Your task to perform on an android device: Open Yahoo.com Image 0: 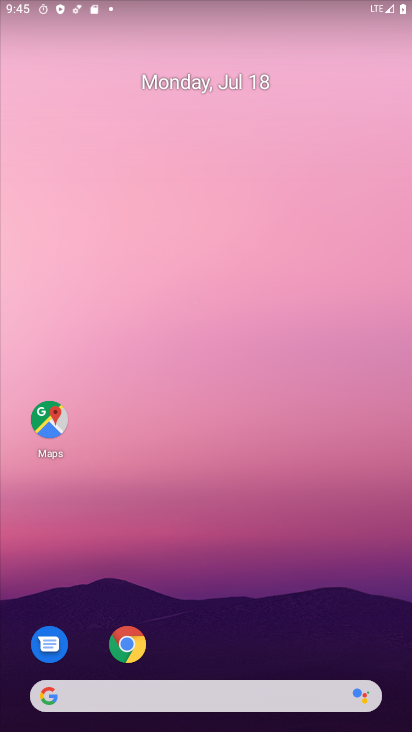
Step 0: press home button
Your task to perform on an android device: Open Yahoo.com Image 1: 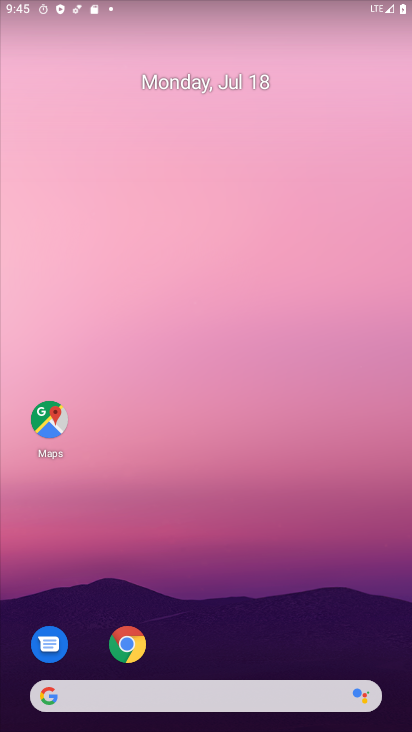
Step 1: click (127, 638)
Your task to perform on an android device: Open Yahoo.com Image 2: 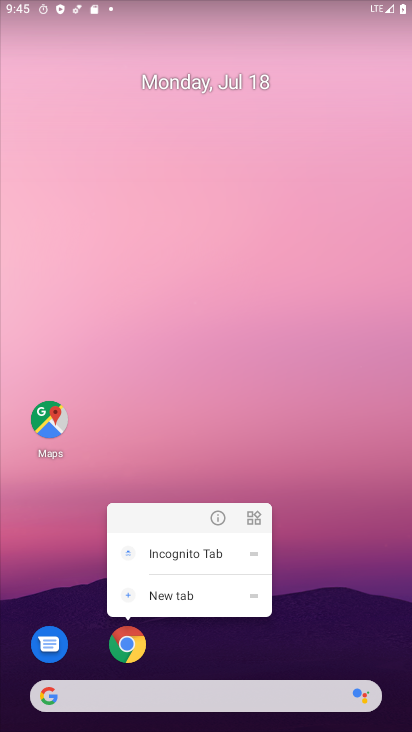
Step 2: click (123, 639)
Your task to perform on an android device: Open Yahoo.com Image 3: 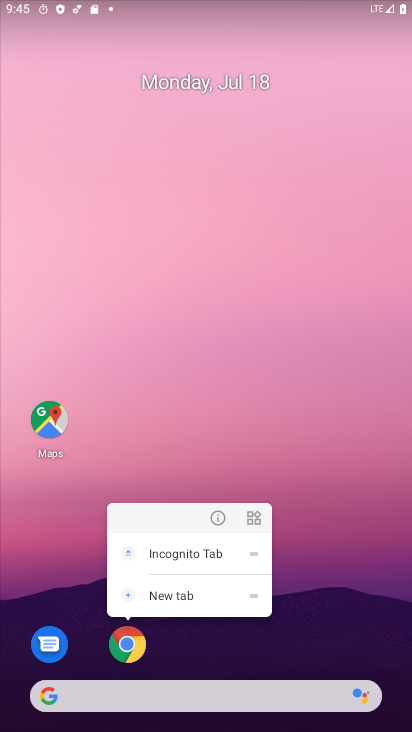
Step 3: click (128, 640)
Your task to perform on an android device: Open Yahoo.com Image 4: 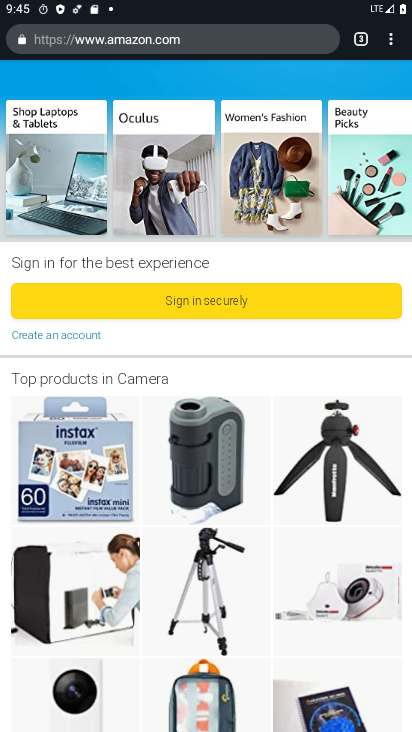
Step 4: click (359, 36)
Your task to perform on an android device: Open Yahoo.com Image 5: 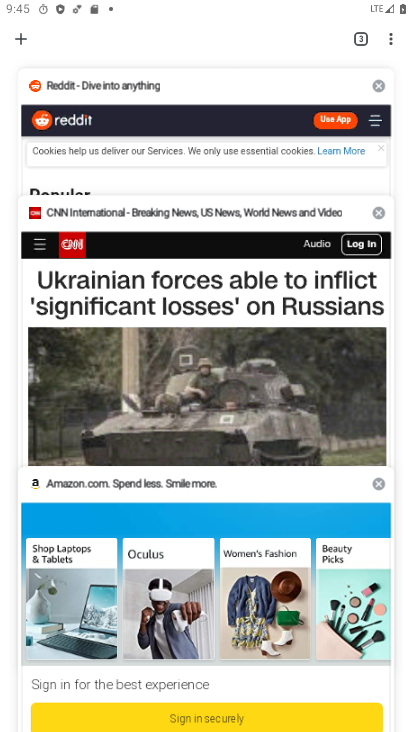
Step 5: click (22, 42)
Your task to perform on an android device: Open Yahoo.com Image 6: 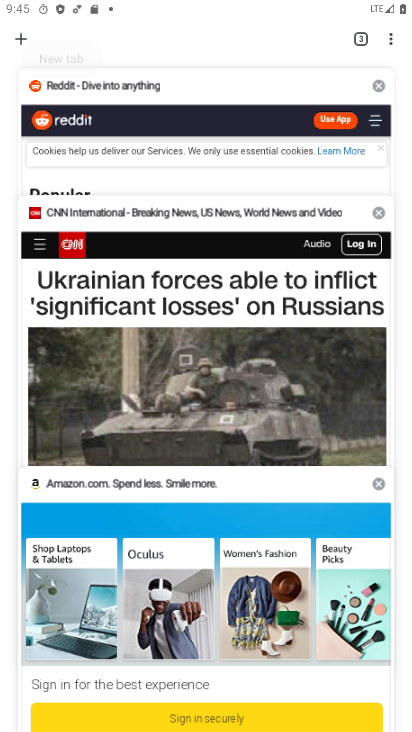
Step 6: click (23, 41)
Your task to perform on an android device: Open Yahoo.com Image 7: 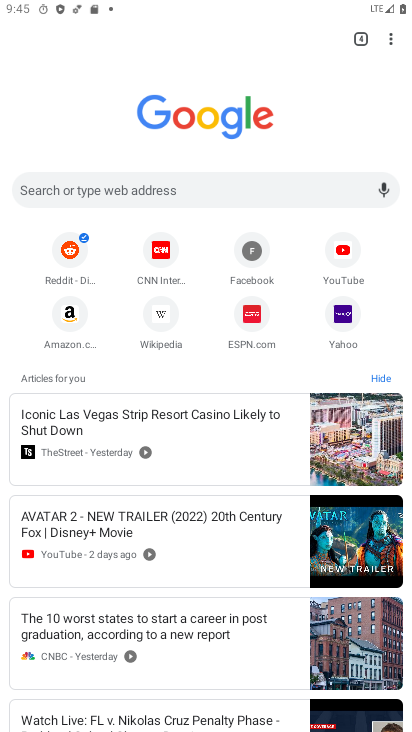
Step 7: click (337, 313)
Your task to perform on an android device: Open Yahoo.com Image 8: 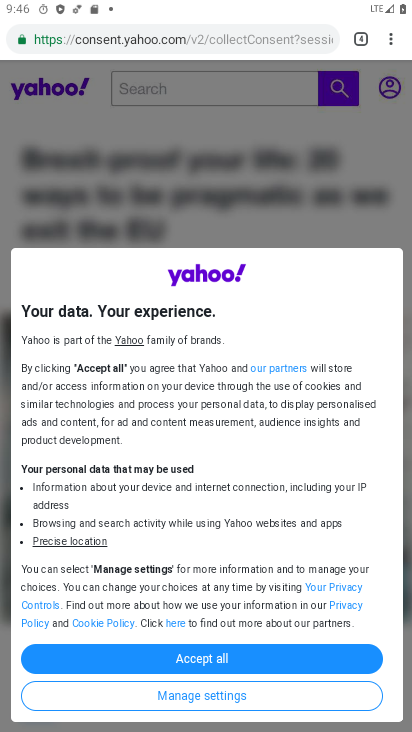
Step 8: click (216, 658)
Your task to perform on an android device: Open Yahoo.com Image 9: 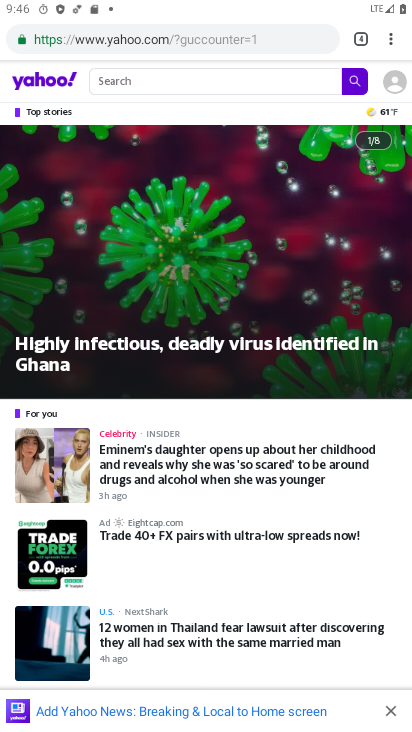
Step 9: task complete